Your task to perform on an android device: What's the weather going to be this weekend? Image 0: 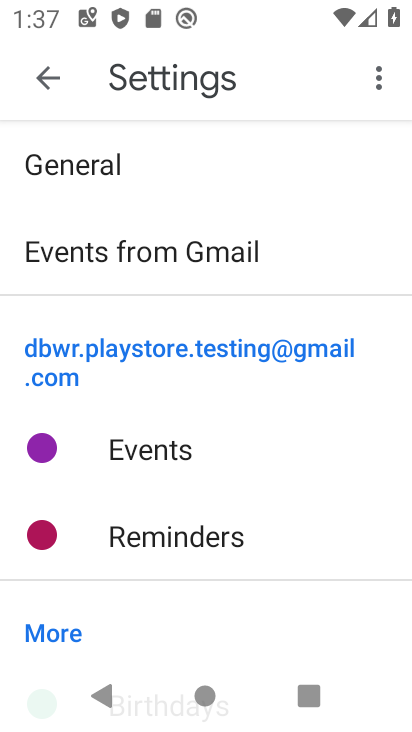
Step 0: press home button
Your task to perform on an android device: What's the weather going to be this weekend? Image 1: 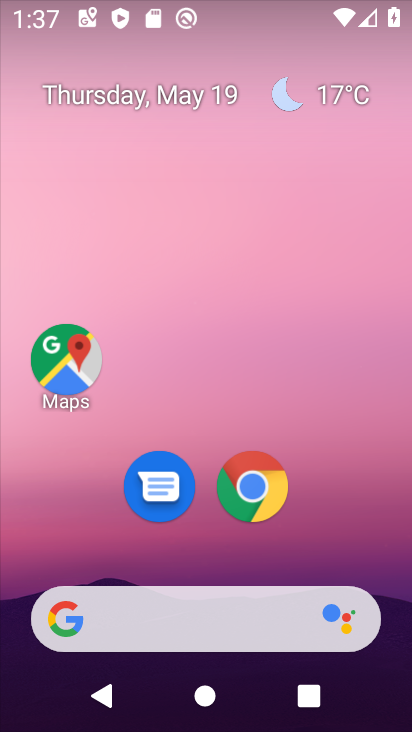
Step 1: drag from (354, 438) to (219, 20)
Your task to perform on an android device: What's the weather going to be this weekend? Image 2: 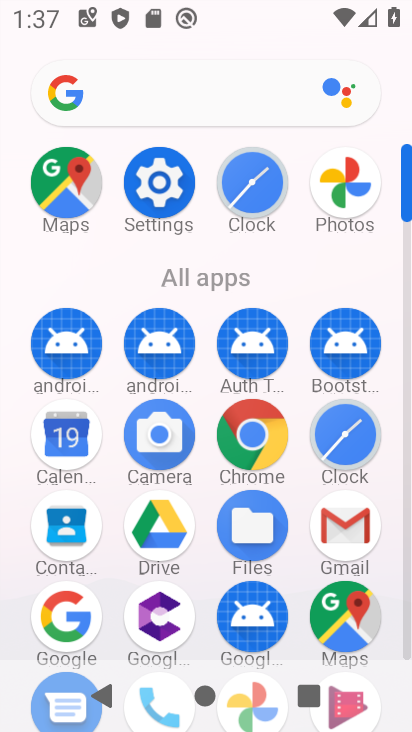
Step 2: drag from (241, 41) to (211, 706)
Your task to perform on an android device: What's the weather going to be this weekend? Image 3: 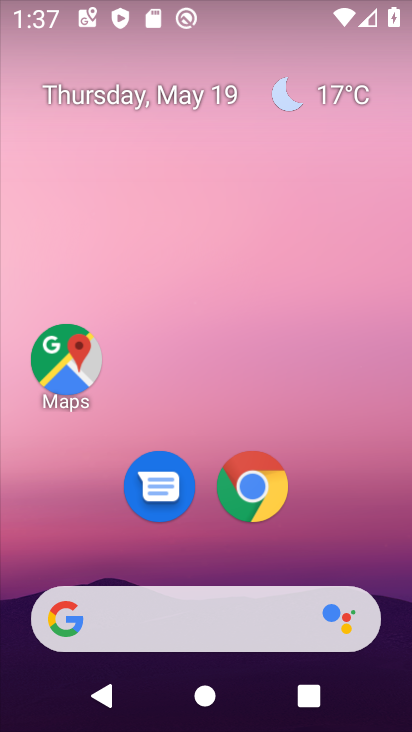
Step 3: click (323, 94)
Your task to perform on an android device: What's the weather going to be this weekend? Image 4: 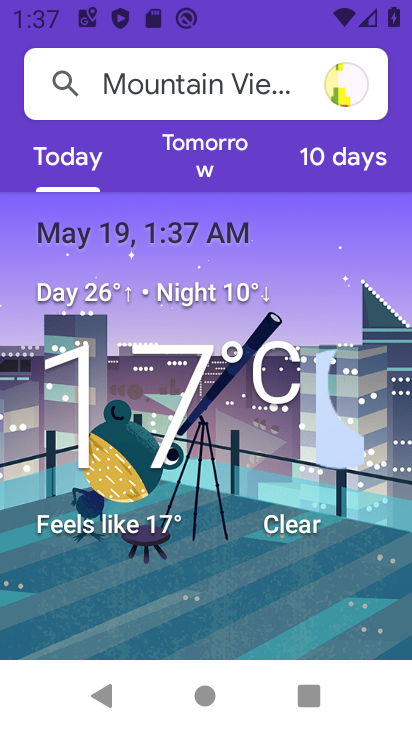
Step 4: click (322, 159)
Your task to perform on an android device: What's the weather going to be this weekend? Image 5: 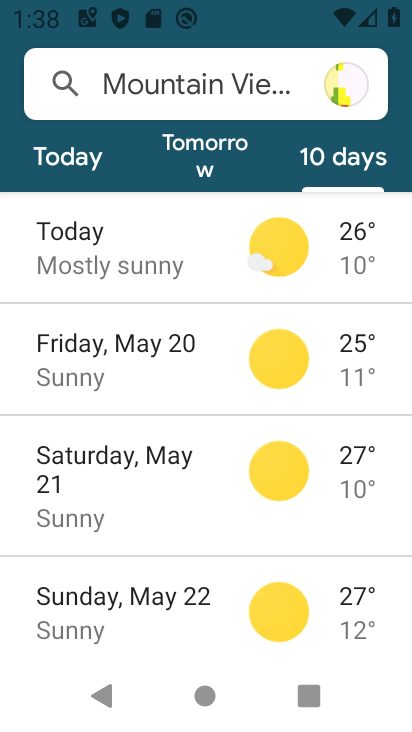
Step 5: task complete